Your task to perform on an android device: Search for Italian restaurants on Maps Image 0: 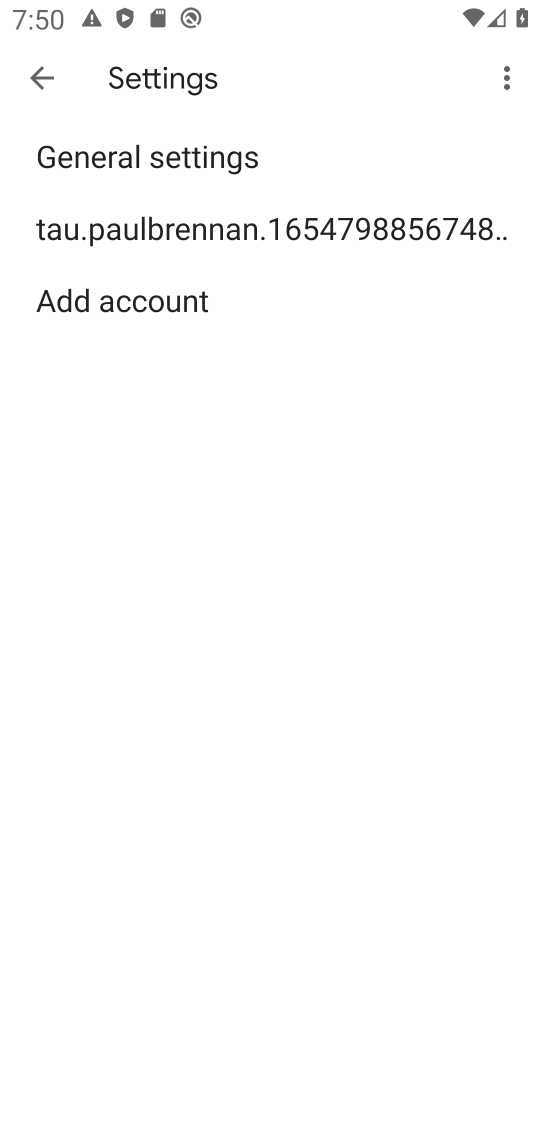
Step 0: press home button
Your task to perform on an android device: Search for Italian restaurants on Maps Image 1: 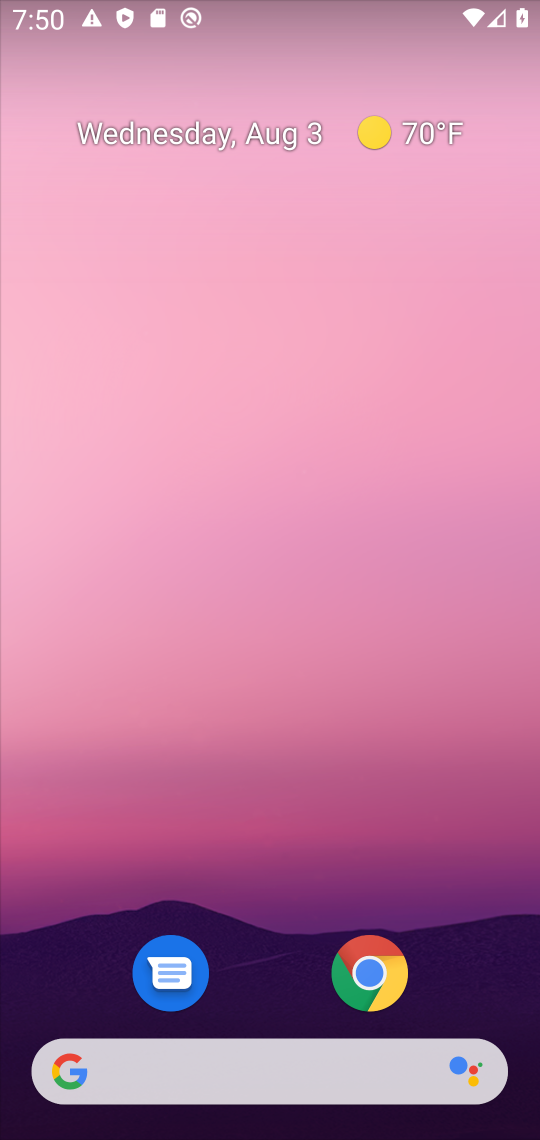
Step 1: drag from (266, 1009) to (308, 148)
Your task to perform on an android device: Search for Italian restaurants on Maps Image 2: 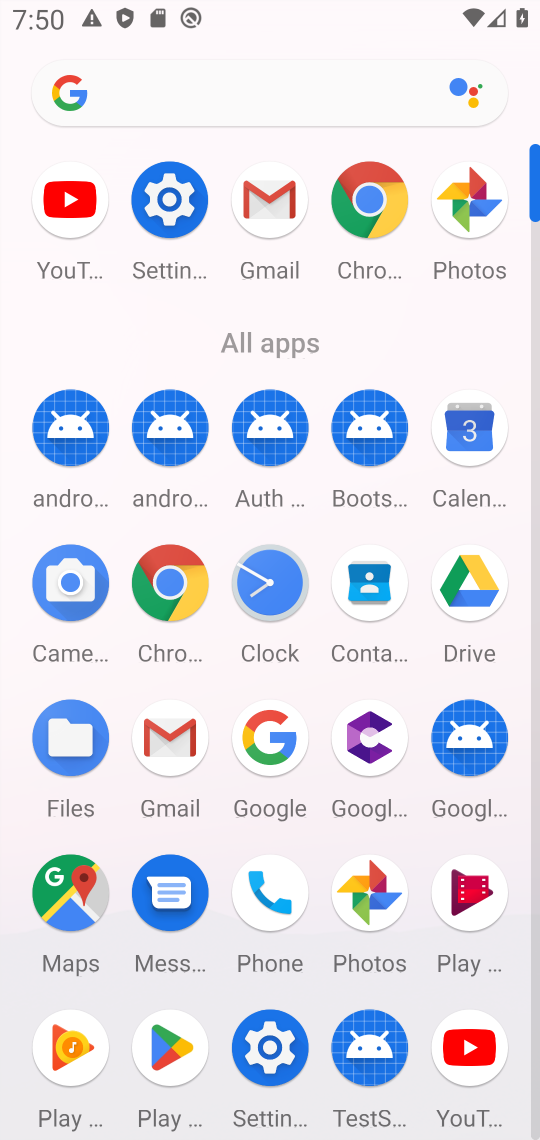
Step 2: click (70, 882)
Your task to perform on an android device: Search for Italian restaurants on Maps Image 3: 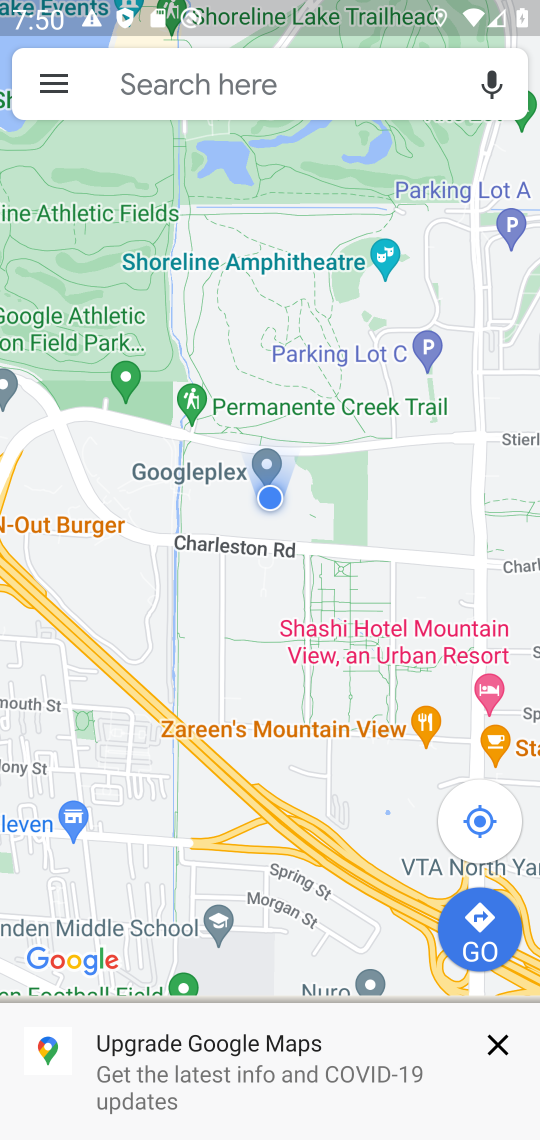
Step 3: click (163, 77)
Your task to perform on an android device: Search for Italian restaurants on Maps Image 4: 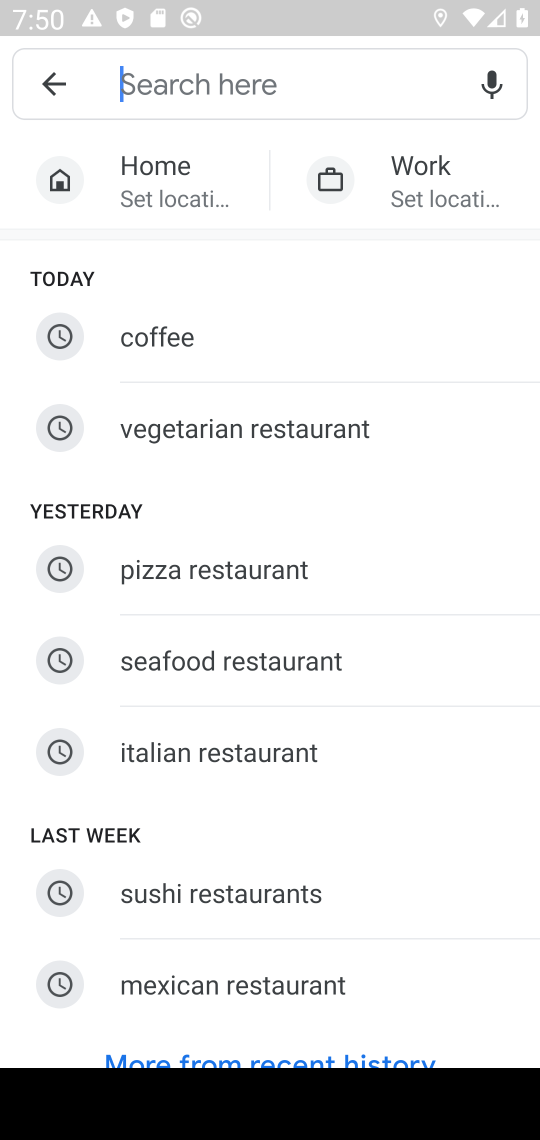
Step 4: click (190, 739)
Your task to perform on an android device: Search for Italian restaurants on Maps Image 5: 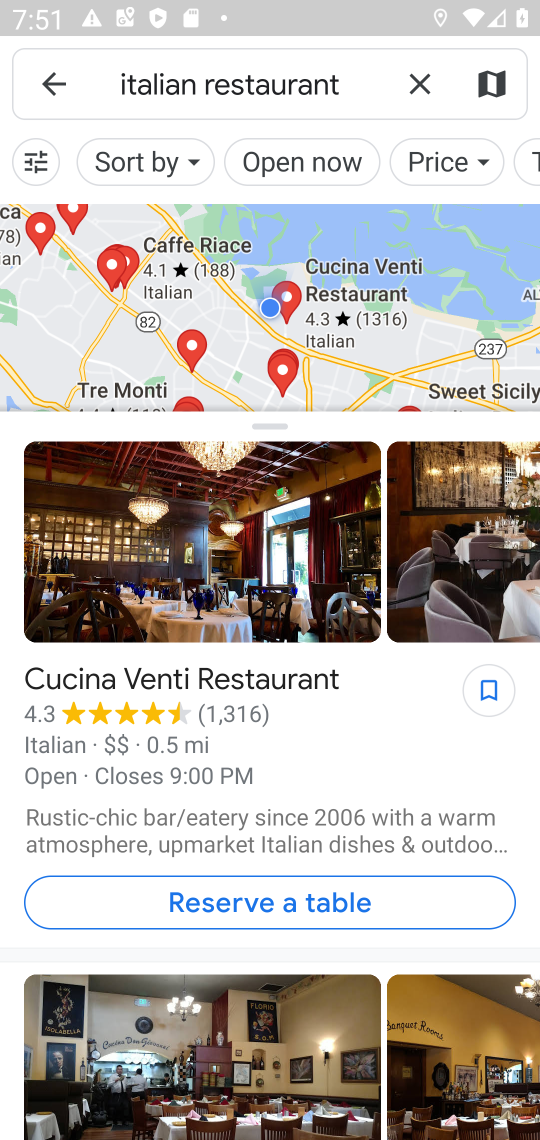
Step 5: task complete